Your task to perform on an android device: Open the Play Movies app and select the watchlist tab. Image 0: 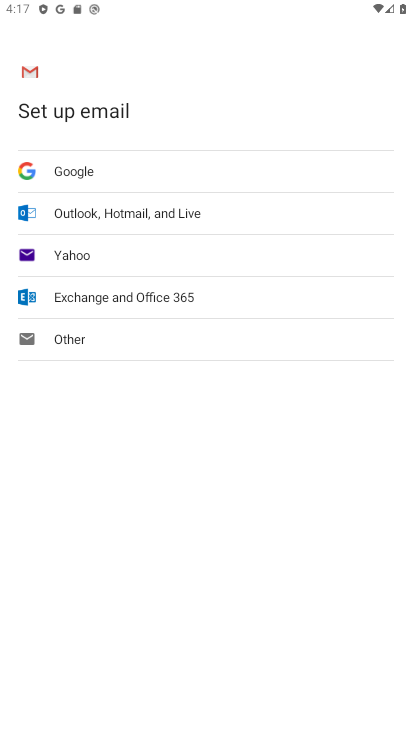
Step 0: press home button
Your task to perform on an android device: Open the Play Movies app and select the watchlist tab. Image 1: 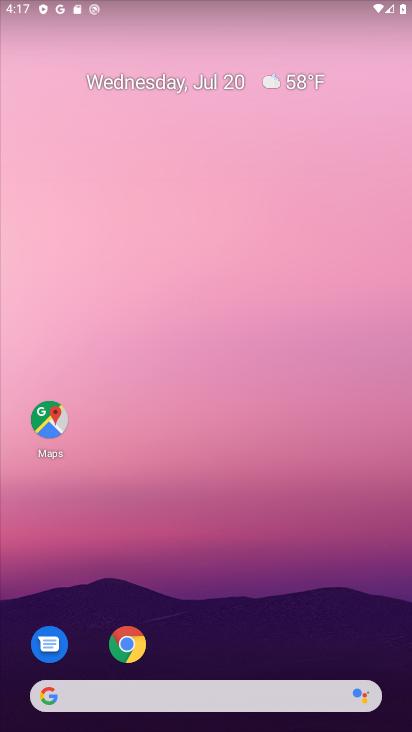
Step 1: drag from (220, 660) to (179, 146)
Your task to perform on an android device: Open the Play Movies app and select the watchlist tab. Image 2: 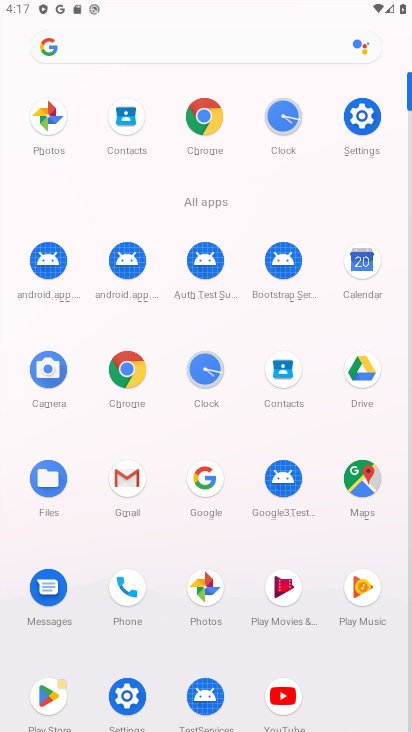
Step 2: click (287, 578)
Your task to perform on an android device: Open the Play Movies app and select the watchlist tab. Image 3: 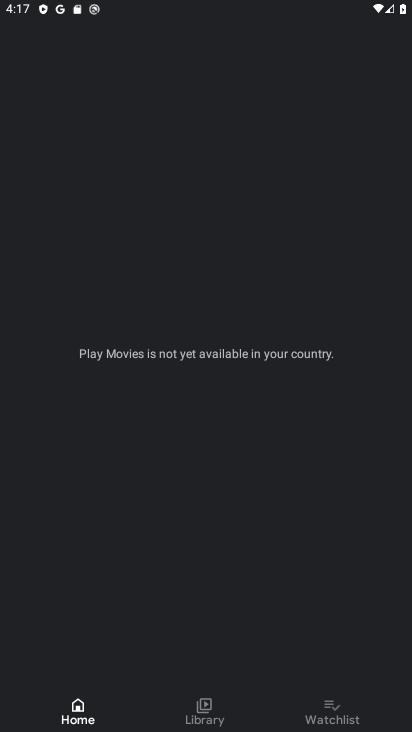
Step 3: click (335, 709)
Your task to perform on an android device: Open the Play Movies app and select the watchlist tab. Image 4: 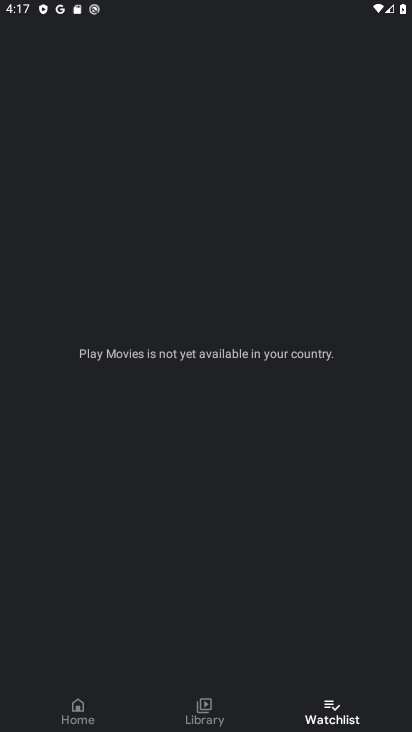
Step 4: task complete